Your task to perform on an android device: Open Wikipedia Image 0: 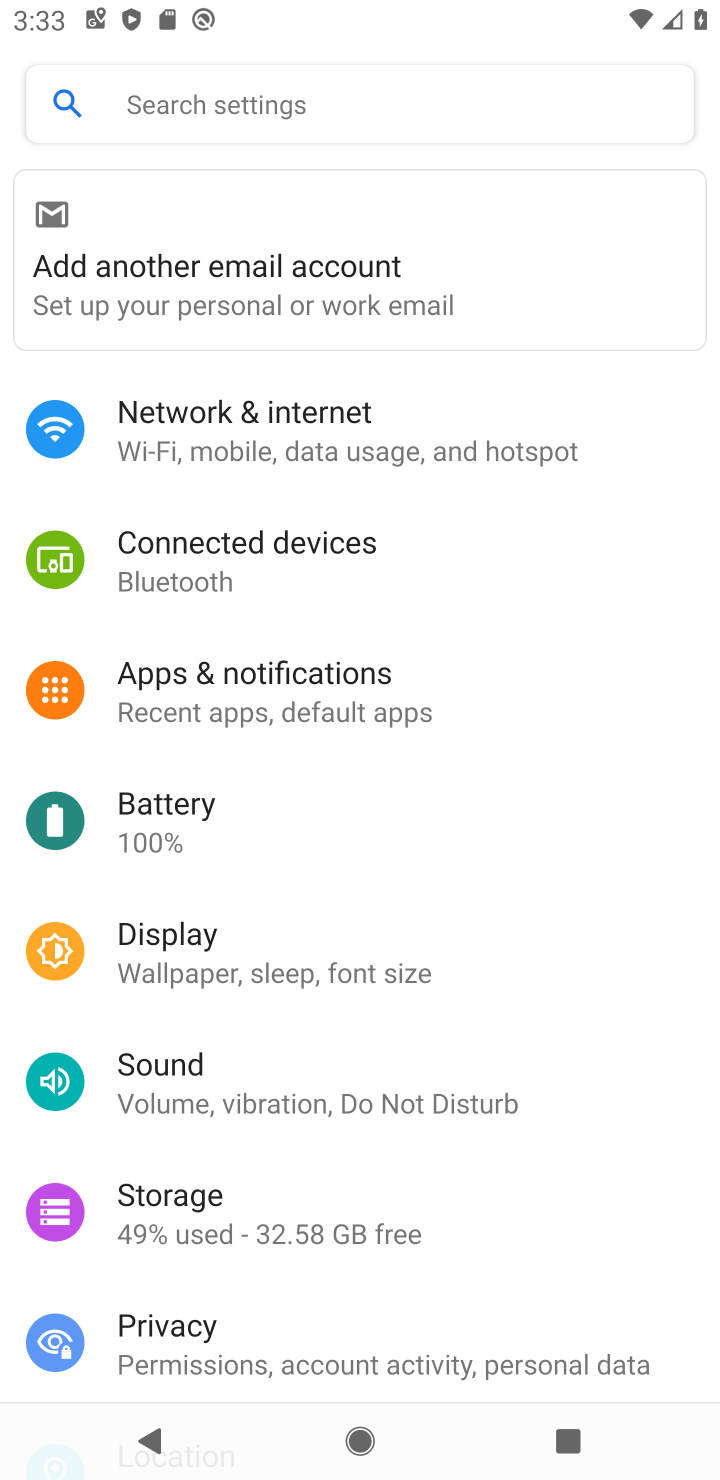
Step 0: press home button
Your task to perform on an android device: Open Wikipedia Image 1: 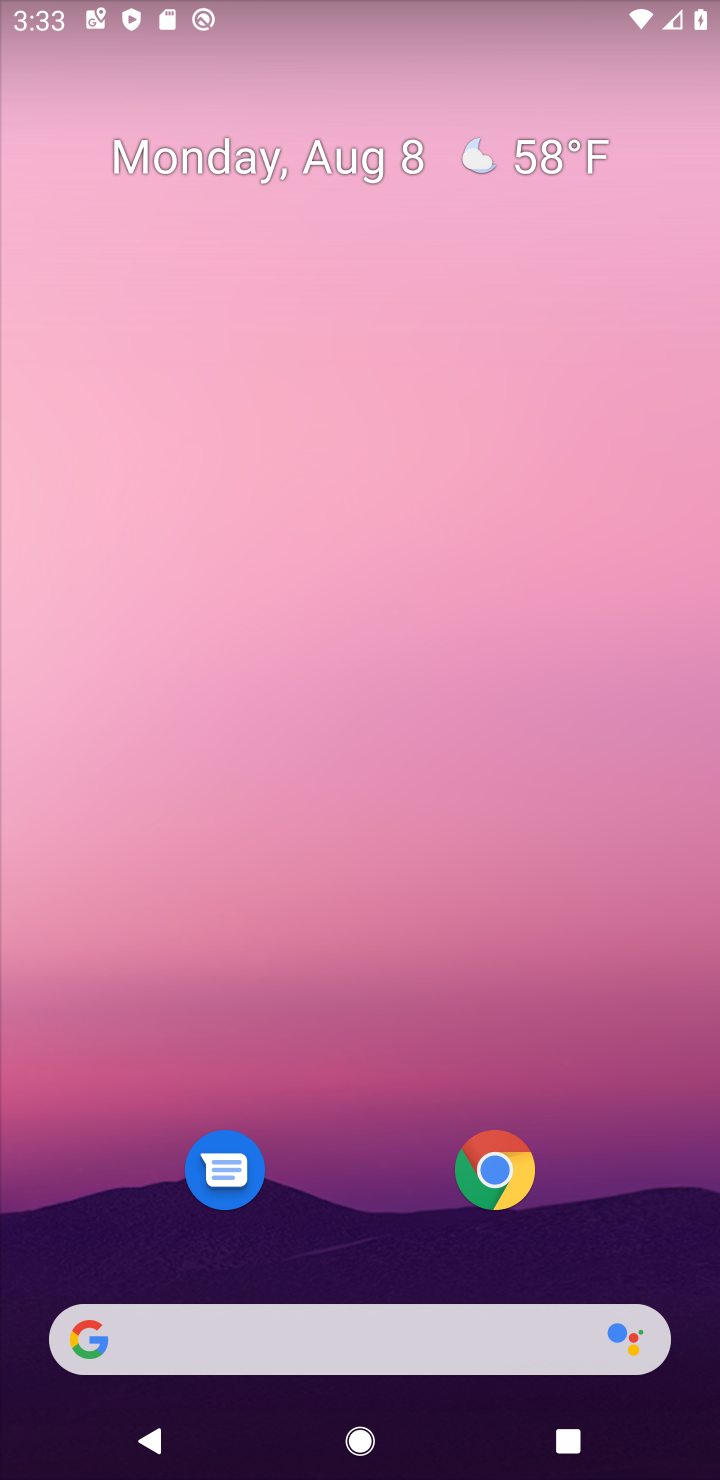
Step 1: click (506, 1174)
Your task to perform on an android device: Open Wikipedia Image 2: 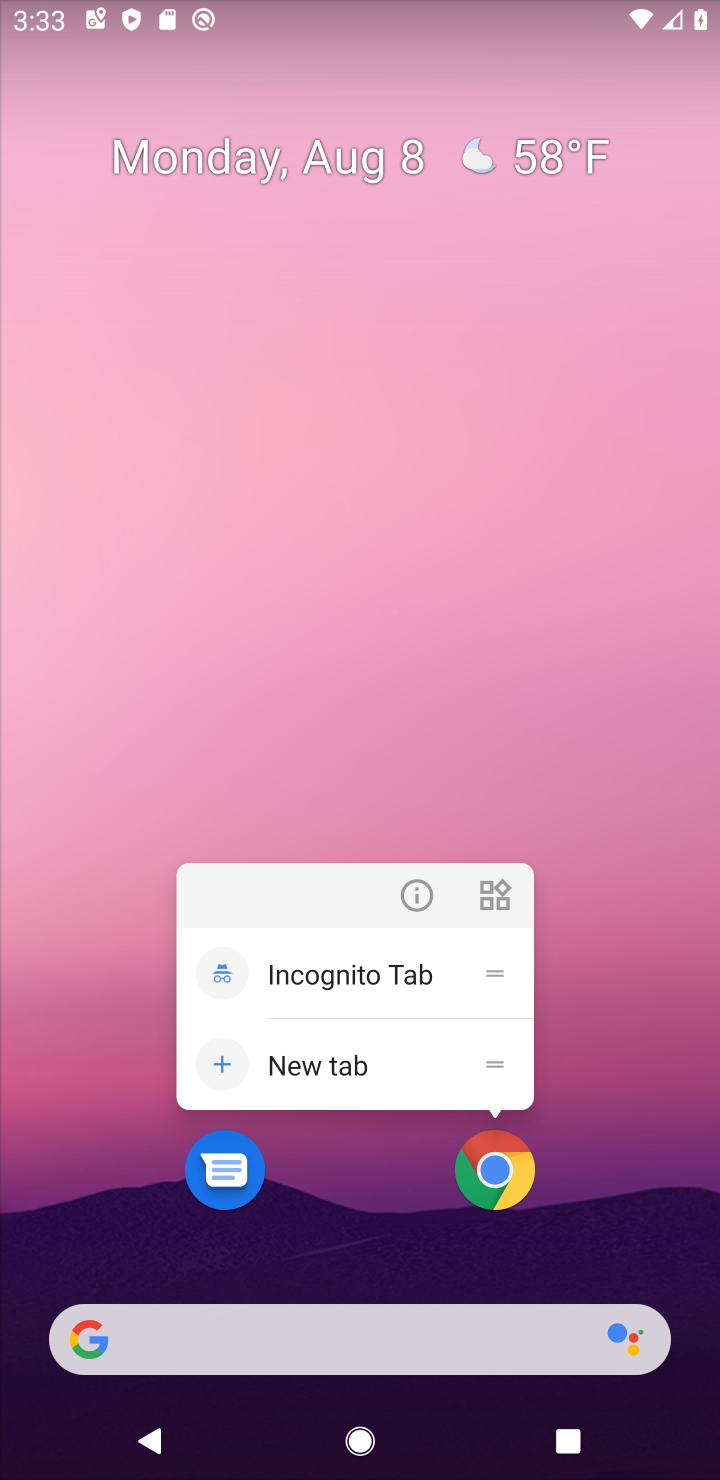
Step 2: click (506, 1174)
Your task to perform on an android device: Open Wikipedia Image 3: 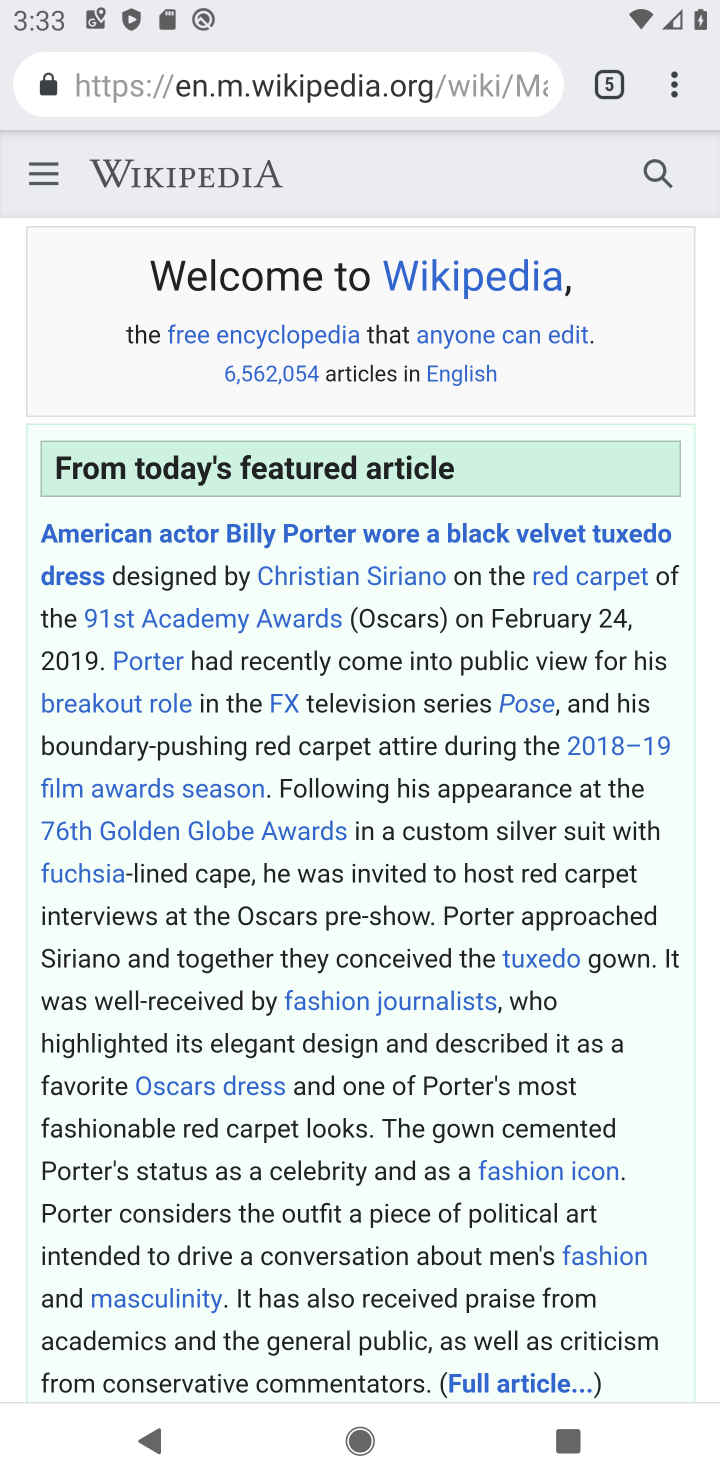
Step 3: task complete